Your task to perform on an android device: Go to accessibility settings Image 0: 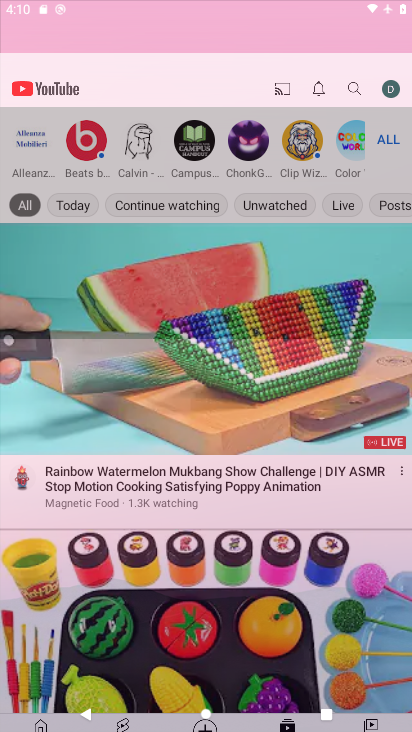
Step 0: drag from (274, 16) to (234, 7)
Your task to perform on an android device: Go to accessibility settings Image 1: 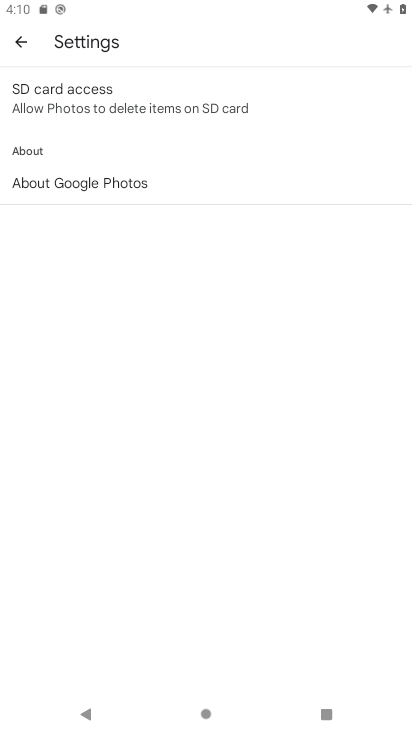
Step 1: press home button
Your task to perform on an android device: Go to accessibility settings Image 2: 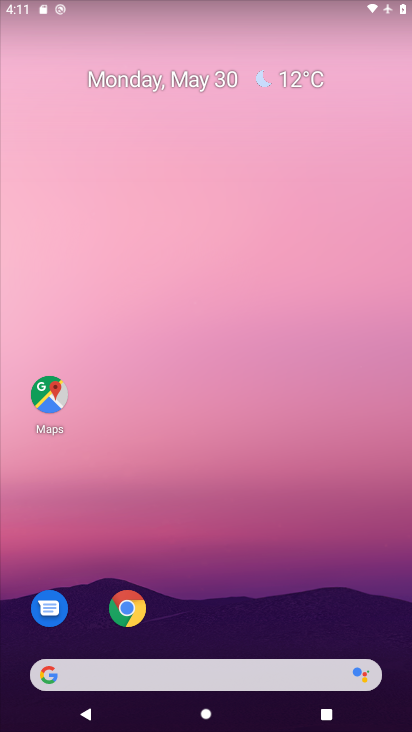
Step 2: drag from (236, 352) to (181, 4)
Your task to perform on an android device: Go to accessibility settings Image 3: 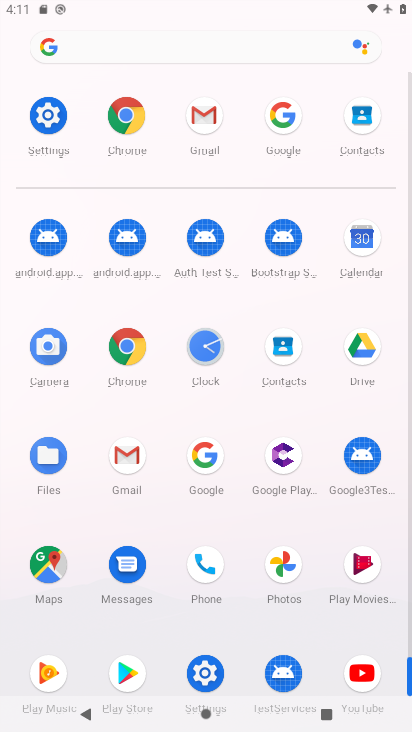
Step 3: click (52, 122)
Your task to perform on an android device: Go to accessibility settings Image 4: 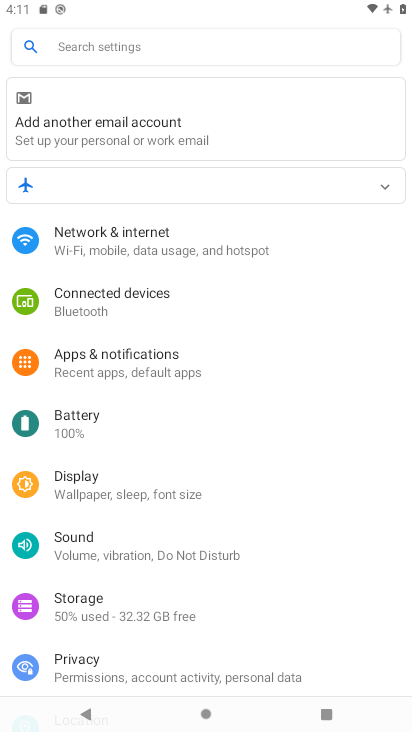
Step 4: drag from (193, 627) to (186, 85)
Your task to perform on an android device: Go to accessibility settings Image 5: 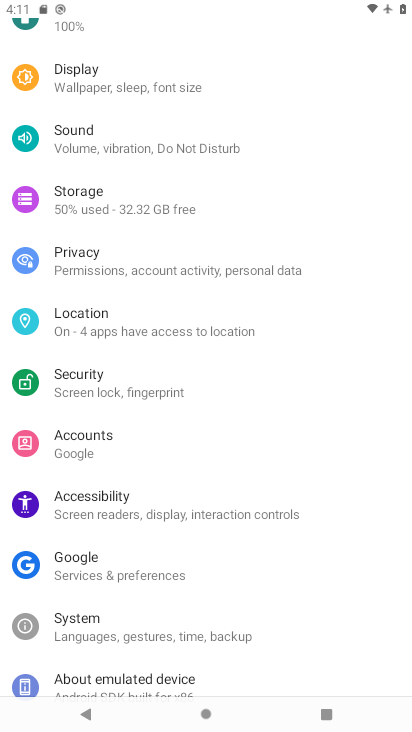
Step 5: click (171, 498)
Your task to perform on an android device: Go to accessibility settings Image 6: 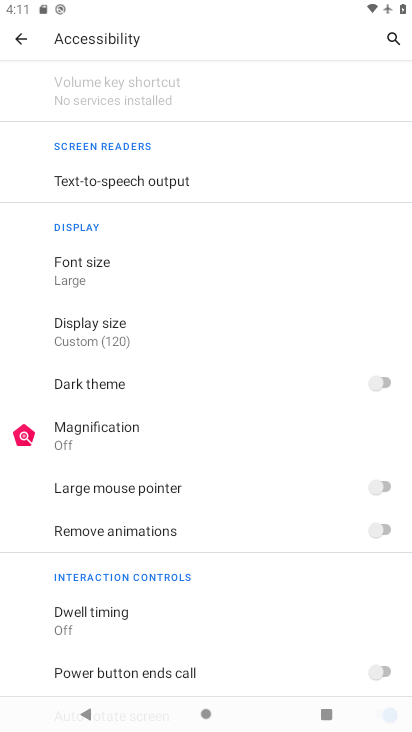
Step 6: task complete